Your task to perform on an android device: change the upload size in google photos Image 0: 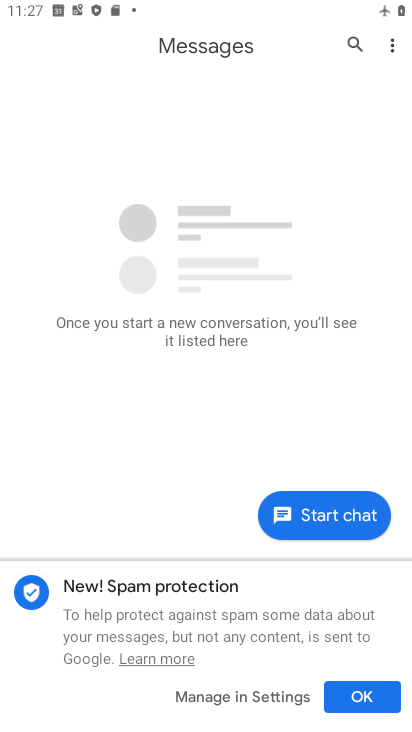
Step 0: press home button
Your task to perform on an android device: change the upload size in google photos Image 1: 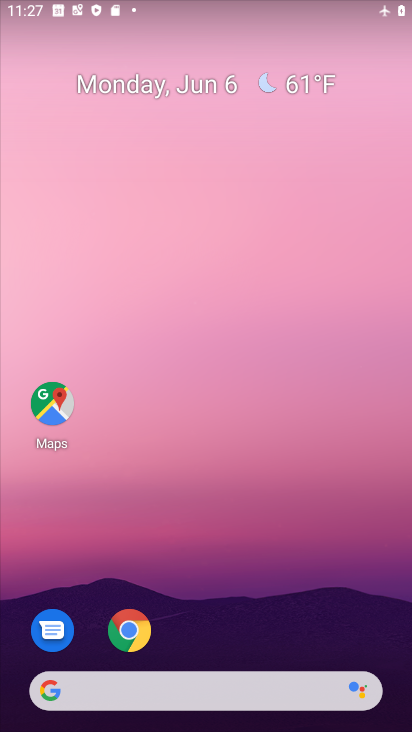
Step 1: drag from (343, 582) to (343, 220)
Your task to perform on an android device: change the upload size in google photos Image 2: 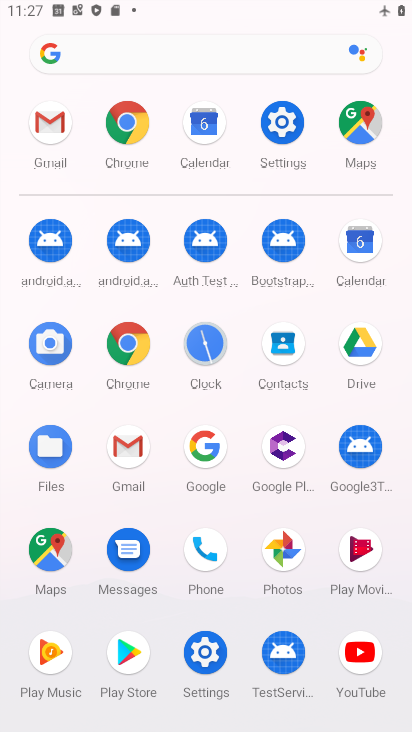
Step 2: click (278, 551)
Your task to perform on an android device: change the upload size in google photos Image 3: 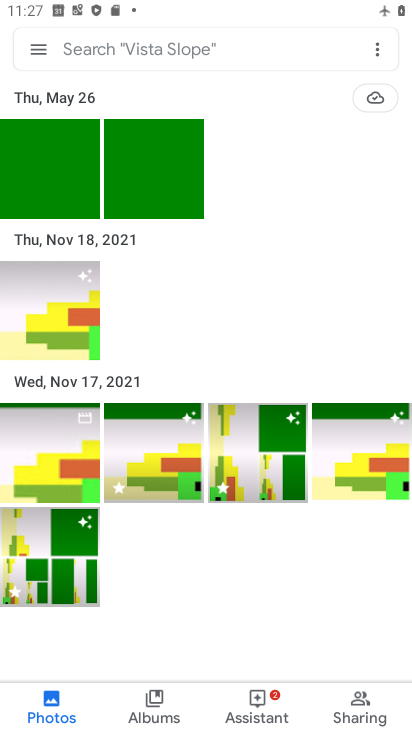
Step 3: click (26, 52)
Your task to perform on an android device: change the upload size in google photos Image 4: 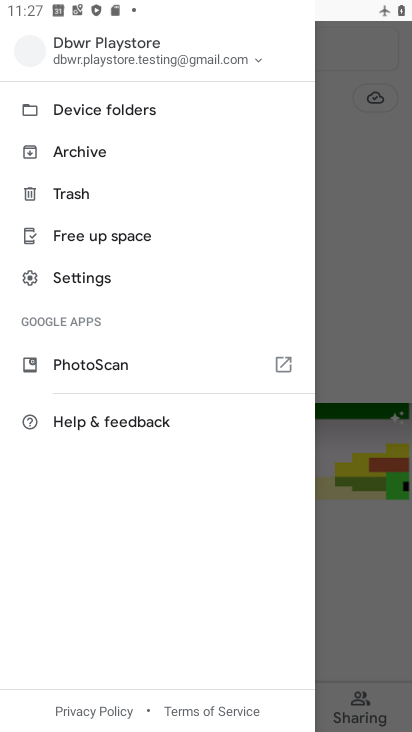
Step 4: click (124, 279)
Your task to perform on an android device: change the upload size in google photos Image 5: 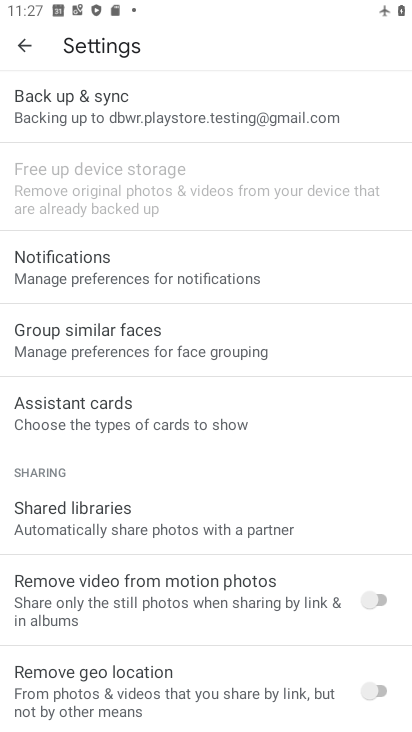
Step 5: click (173, 116)
Your task to perform on an android device: change the upload size in google photos Image 6: 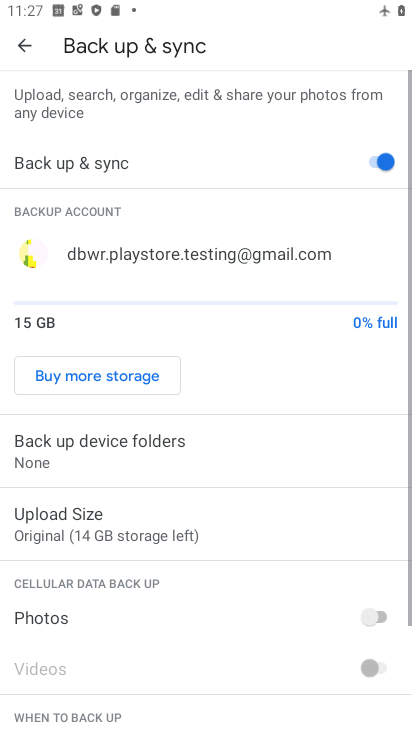
Step 6: click (115, 510)
Your task to perform on an android device: change the upload size in google photos Image 7: 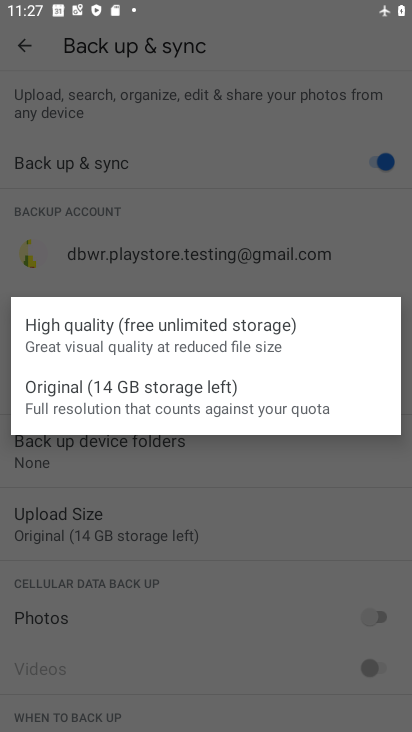
Step 7: click (138, 394)
Your task to perform on an android device: change the upload size in google photos Image 8: 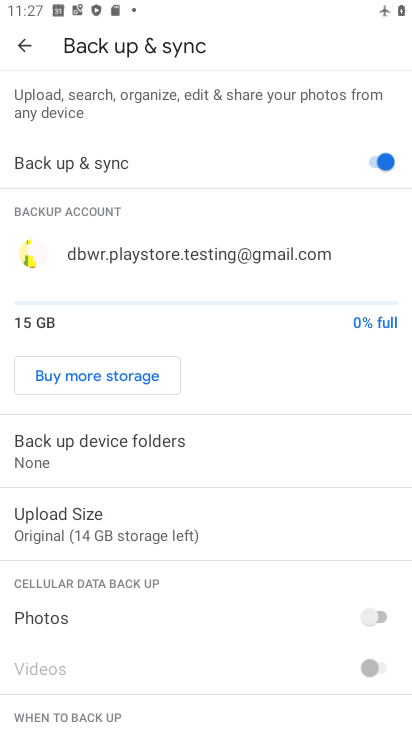
Step 8: task complete